Your task to perform on an android device: Toggle the flashlight Image 0: 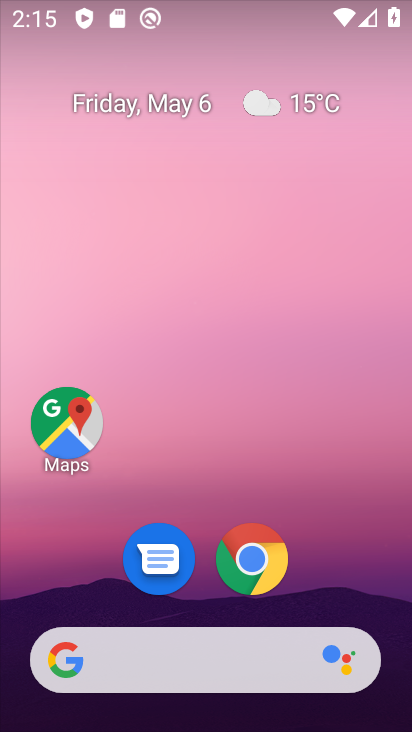
Step 0: drag from (337, 552) to (333, 256)
Your task to perform on an android device: Toggle the flashlight Image 1: 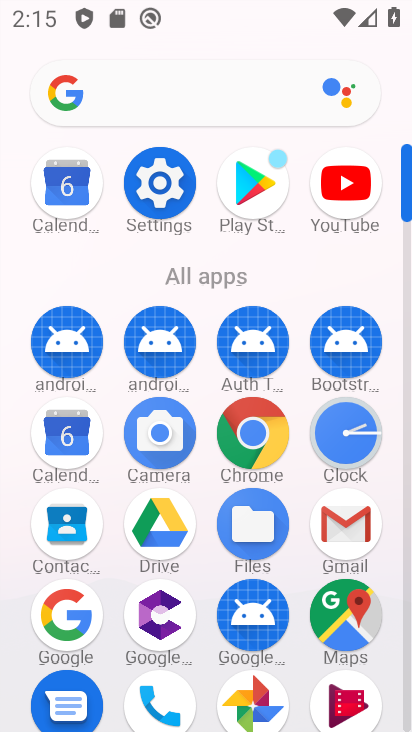
Step 1: click (154, 225)
Your task to perform on an android device: Toggle the flashlight Image 2: 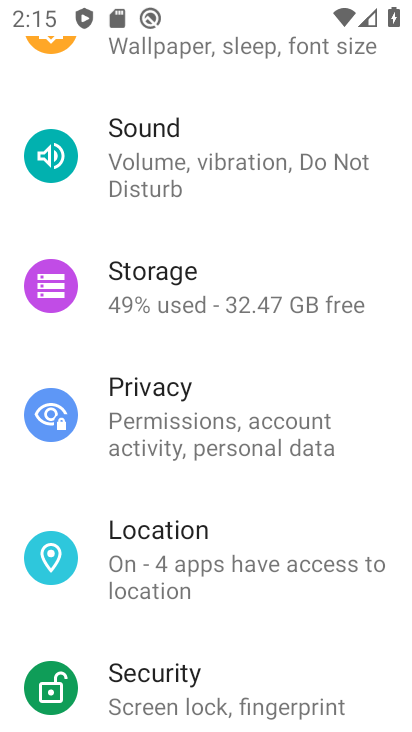
Step 2: drag from (220, 290) to (223, 613)
Your task to perform on an android device: Toggle the flashlight Image 3: 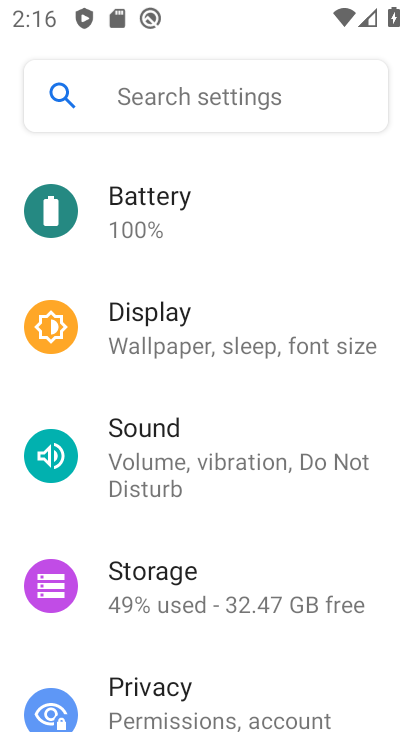
Step 3: click (194, 565)
Your task to perform on an android device: Toggle the flashlight Image 4: 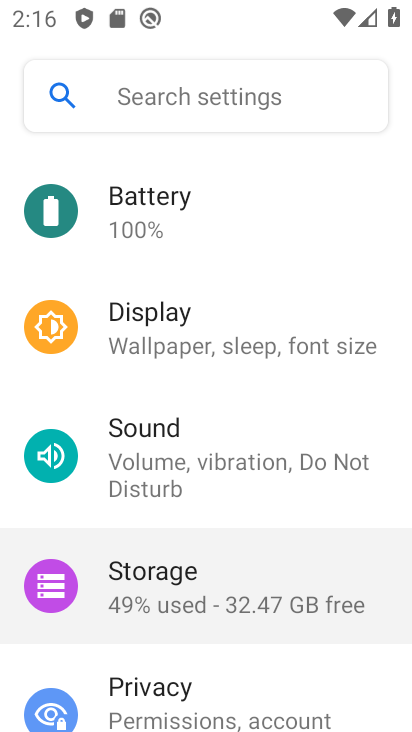
Step 4: click (194, 535)
Your task to perform on an android device: Toggle the flashlight Image 5: 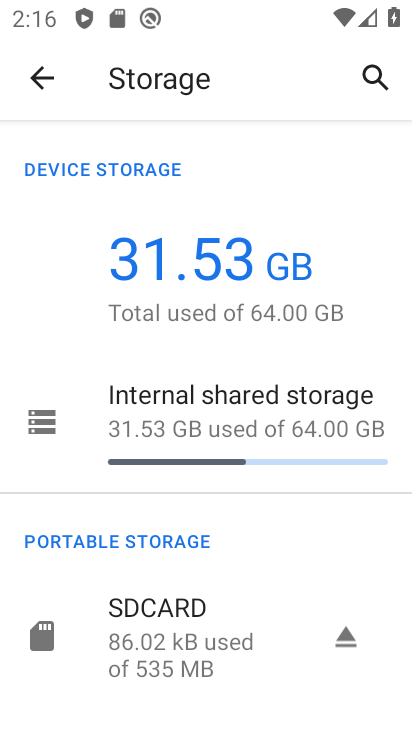
Step 5: task complete